Your task to perform on an android device: toggle show notifications on the lock screen Image 0: 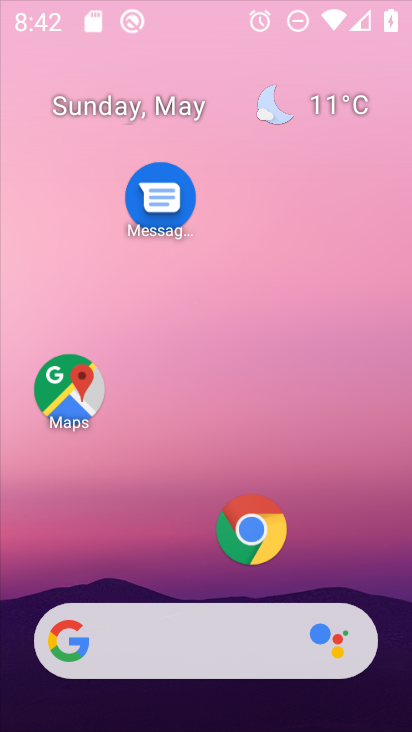
Step 0: press home button
Your task to perform on an android device: toggle show notifications on the lock screen Image 1: 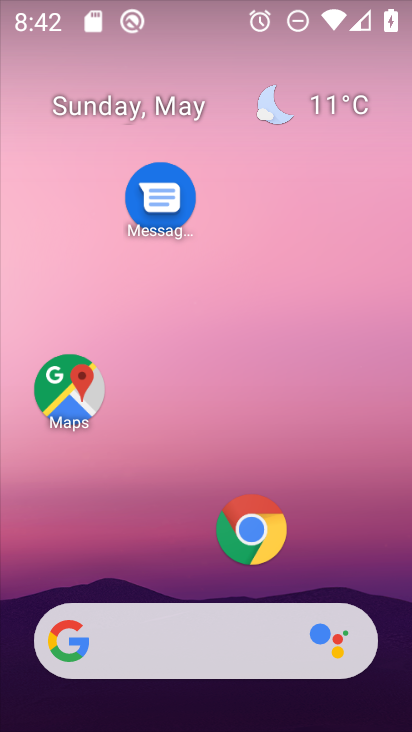
Step 1: drag from (215, 580) to (249, 69)
Your task to perform on an android device: toggle show notifications on the lock screen Image 2: 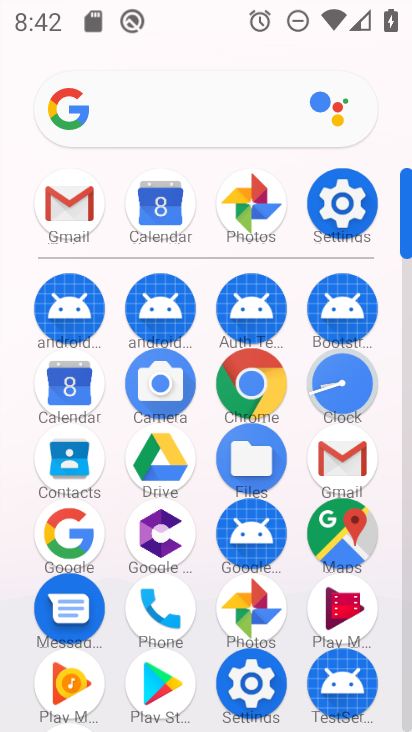
Step 2: click (243, 673)
Your task to perform on an android device: toggle show notifications on the lock screen Image 3: 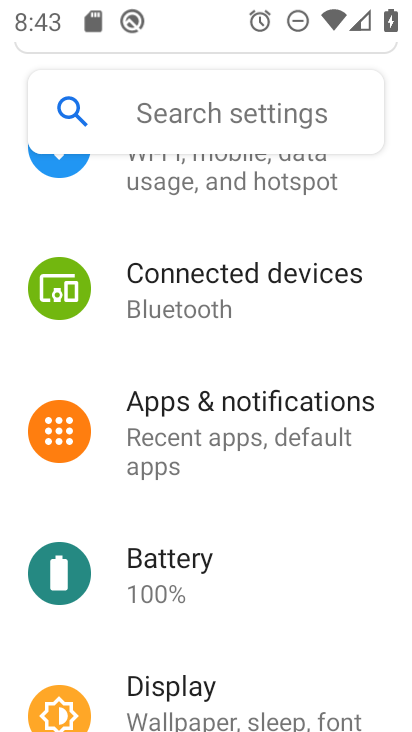
Step 3: click (248, 394)
Your task to perform on an android device: toggle show notifications on the lock screen Image 4: 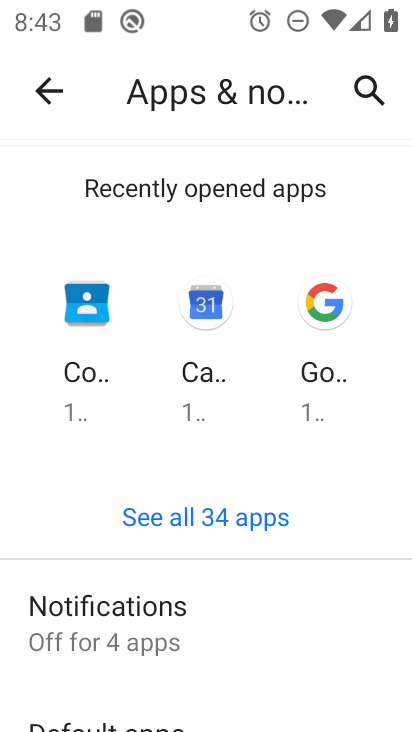
Step 4: click (190, 629)
Your task to perform on an android device: toggle show notifications on the lock screen Image 5: 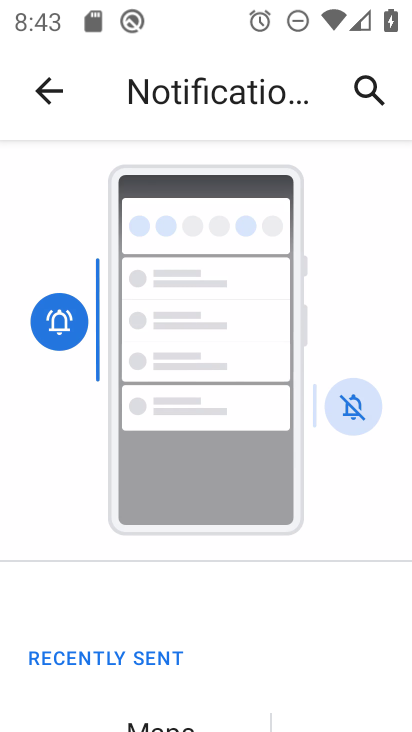
Step 5: drag from (224, 694) to (260, 158)
Your task to perform on an android device: toggle show notifications on the lock screen Image 6: 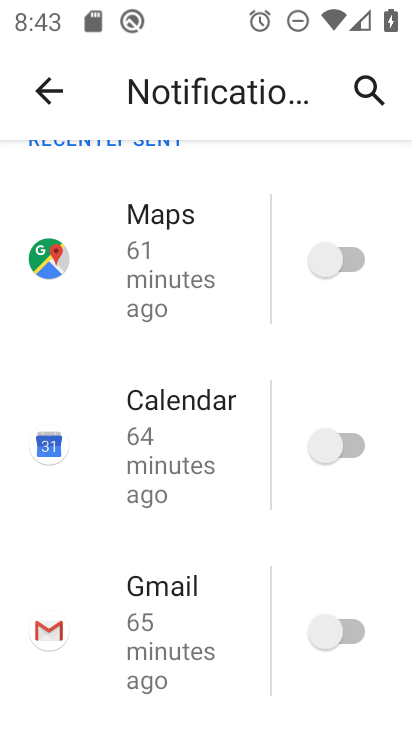
Step 6: drag from (239, 672) to (288, 35)
Your task to perform on an android device: toggle show notifications on the lock screen Image 7: 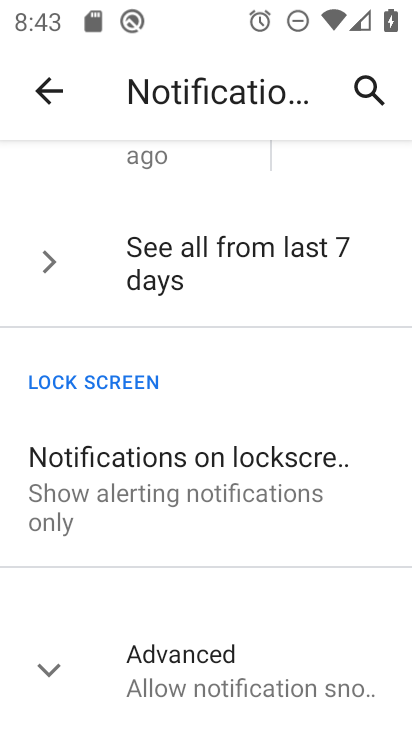
Step 7: click (262, 496)
Your task to perform on an android device: toggle show notifications on the lock screen Image 8: 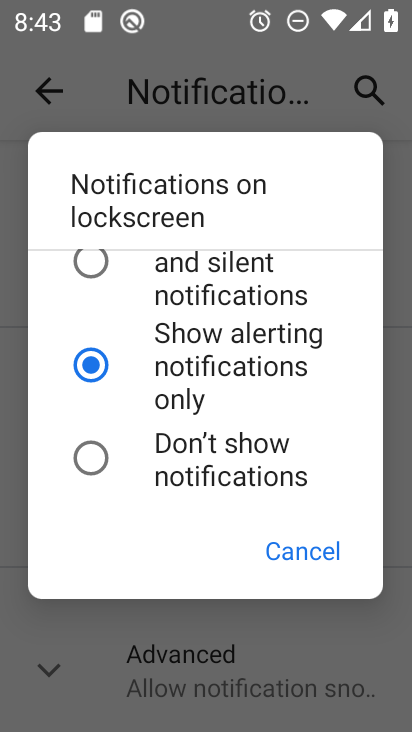
Step 8: click (89, 255)
Your task to perform on an android device: toggle show notifications on the lock screen Image 9: 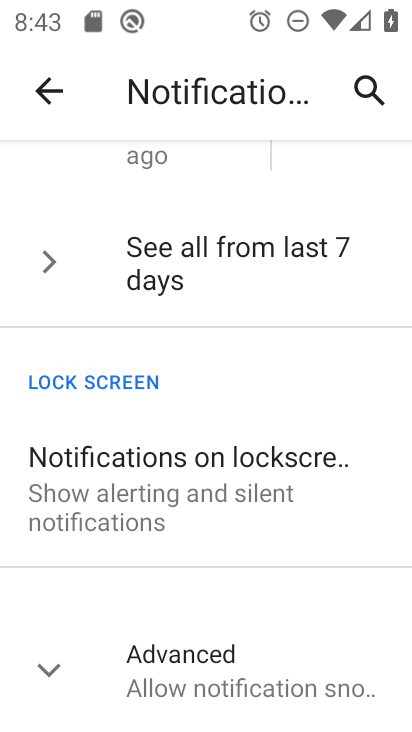
Step 9: task complete